Your task to perform on an android device: turn off translation in the chrome app Image 0: 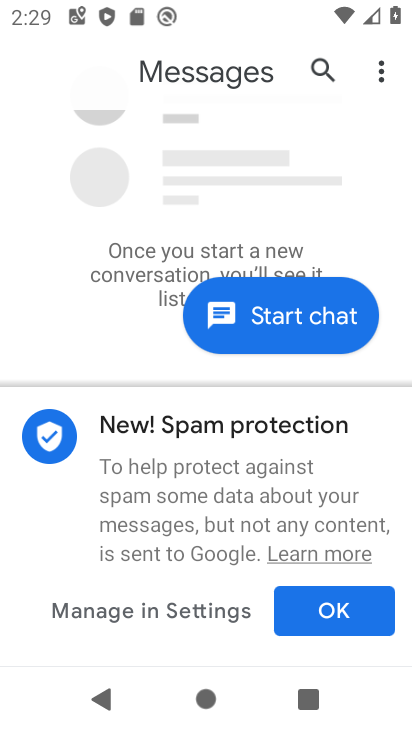
Step 0: press home button
Your task to perform on an android device: turn off translation in the chrome app Image 1: 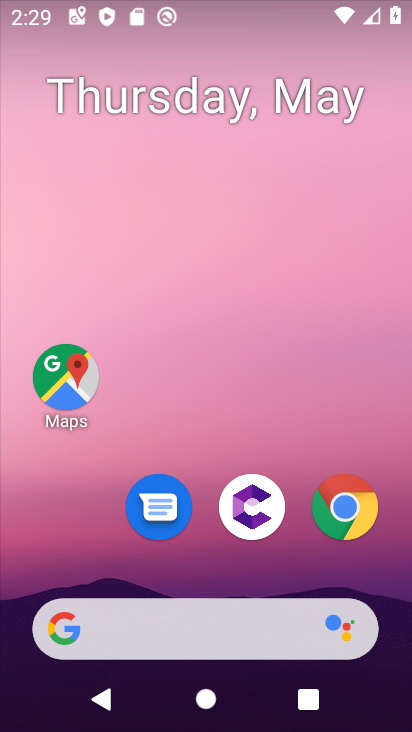
Step 1: click (340, 494)
Your task to perform on an android device: turn off translation in the chrome app Image 2: 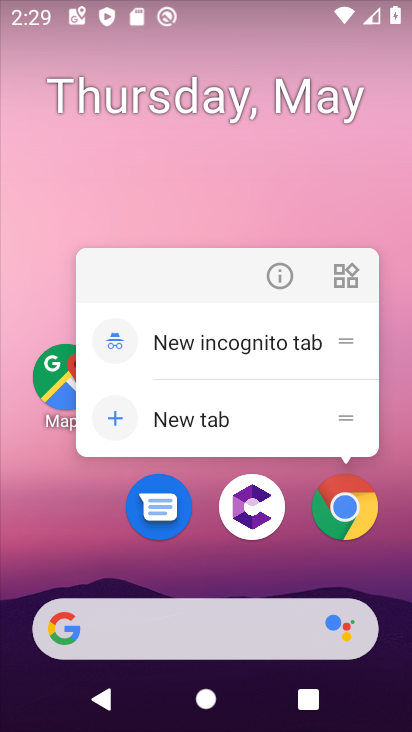
Step 2: click (361, 528)
Your task to perform on an android device: turn off translation in the chrome app Image 3: 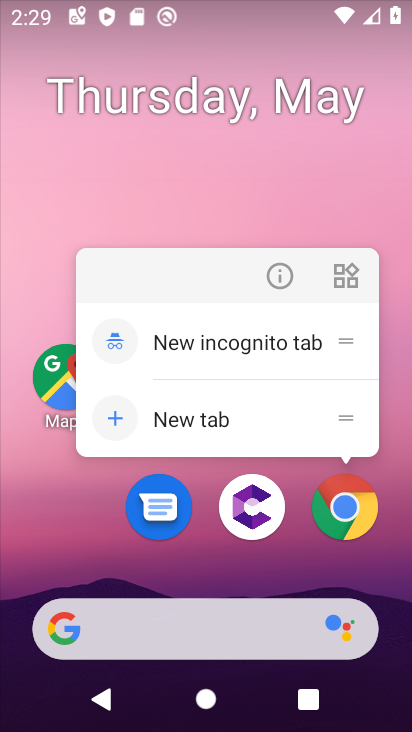
Step 3: click (359, 521)
Your task to perform on an android device: turn off translation in the chrome app Image 4: 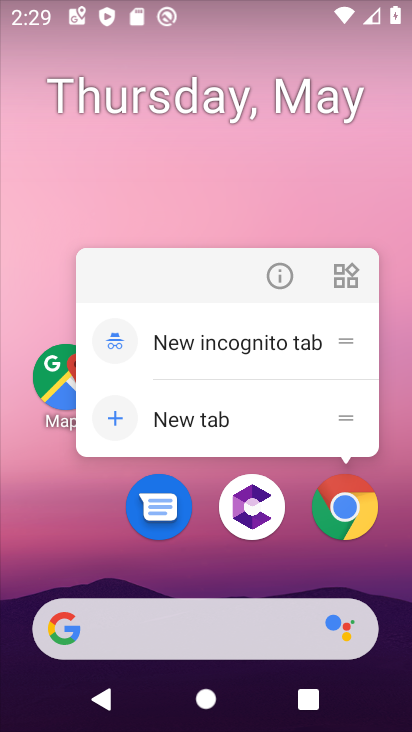
Step 4: click (337, 507)
Your task to perform on an android device: turn off translation in the chrome app Image 5: 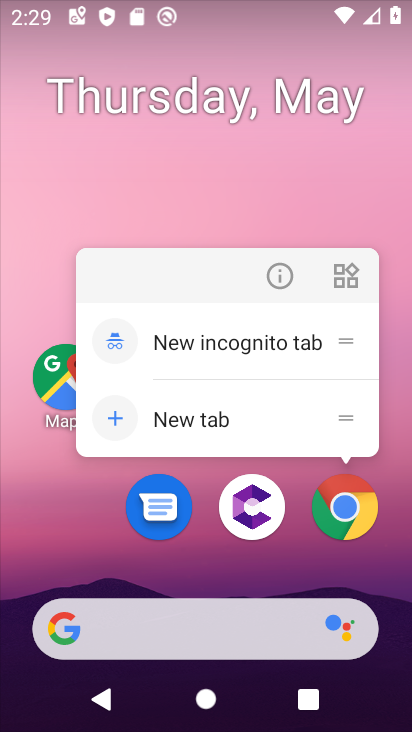
Step 5: click (337, 513)
Your task to perform on an android device: turn off translation in the chrome app Image 6: 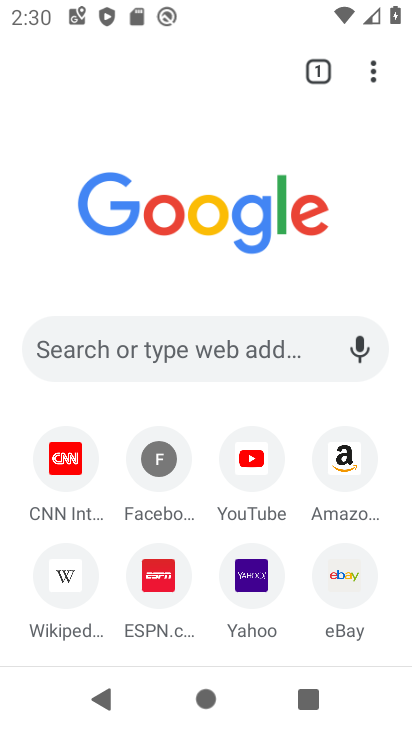
Step 6: drag from (377, 72) to (133, 515)
Your task to perform on an android device: turn off translation in the chrome app Image 7: 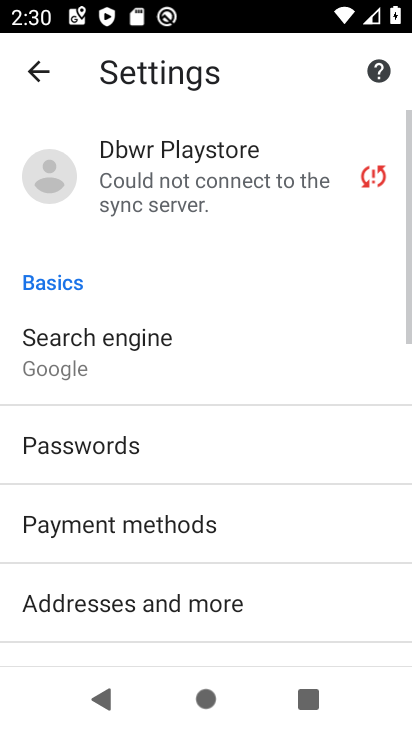
Step 7: drag from (154, 552) to (204, 109)
Your task to perform on an android device: turn off translation in the chrome app Image 8: 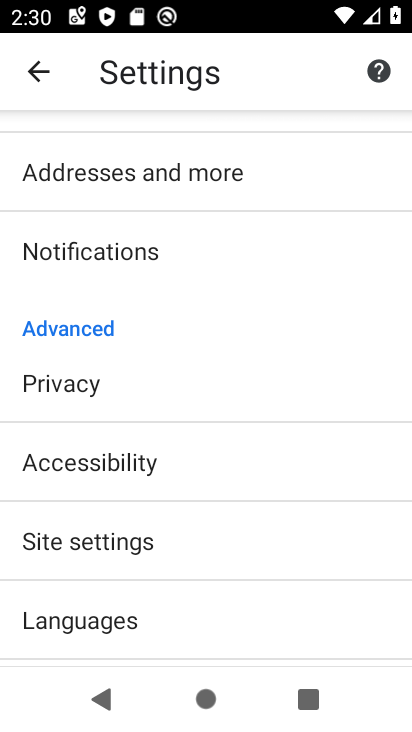
Step 8: click (93, 620)
Your task to perform on an android device: turn off translation in the chrome app Image 9: 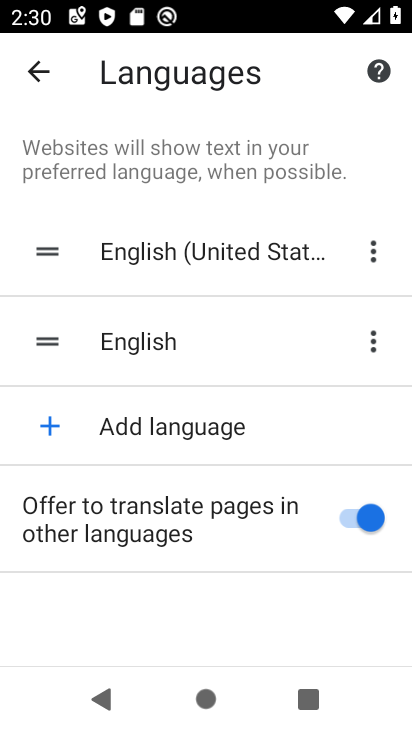
Step 9: click (379, 518)
Your task to perform on an android device: turn off translation in the chrome app Image 10: 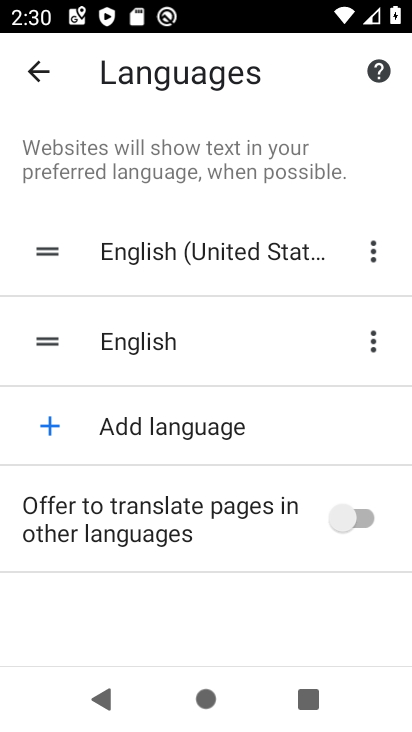
Step 10: task complete